Your task to perform on an android device: toggle notifications settings in the gmail app Image 0: 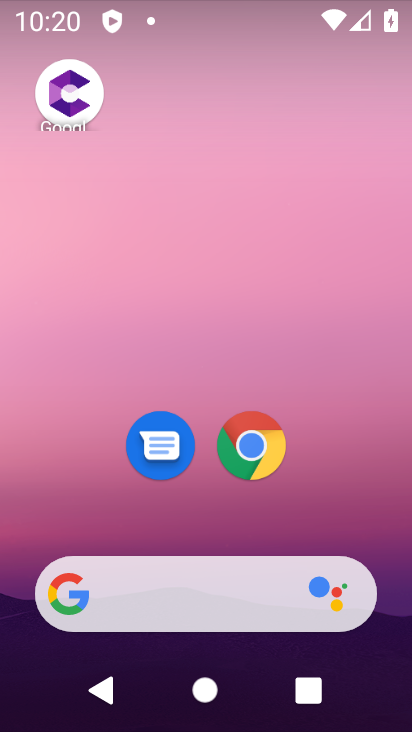
Step 0: drag from (219, 552) to (152, 18)
Your task to perform on an android device: toggle notifications settings in the gmail app Image 1: 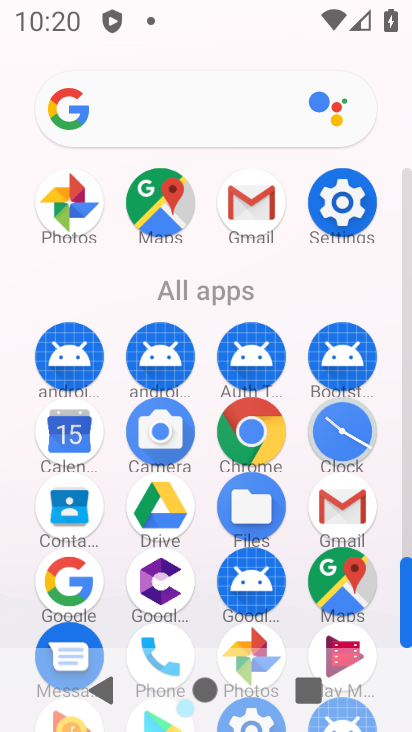
Step 1: click (253, 209)
Your task to perform on an android device: toggle notifications settings in the gmail app Image 2: 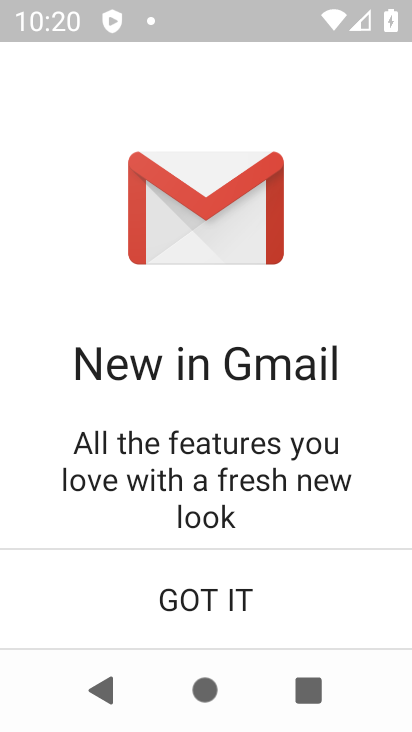
Step 2: click (116, 610)
Your task to perform on an android device: toggle notifications settings in the gmail app Image 3: 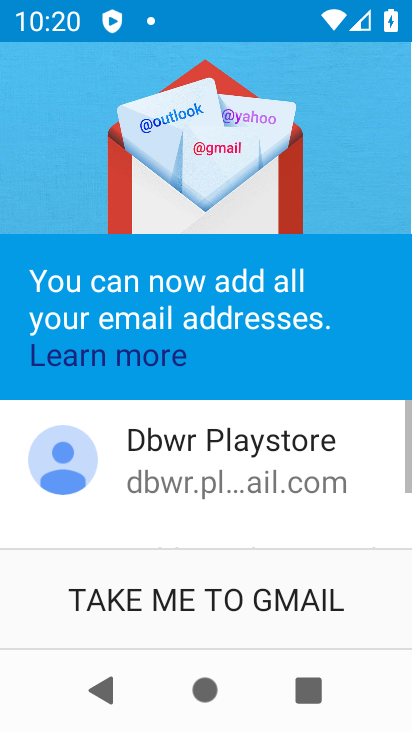
Step 3: click (115, 611)
Your task to perform on an android device: toggle notifications settings in the gmail app Image 4: 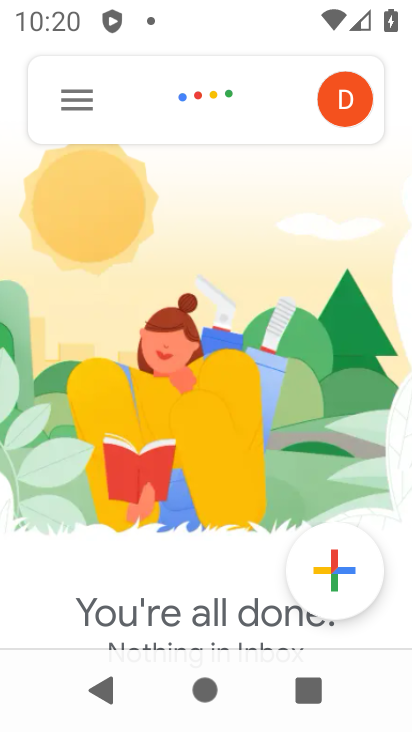
Step 4: click (72, 113)
Your task to perform on an android device: toggle notifications settings in the gmail app Image 5: 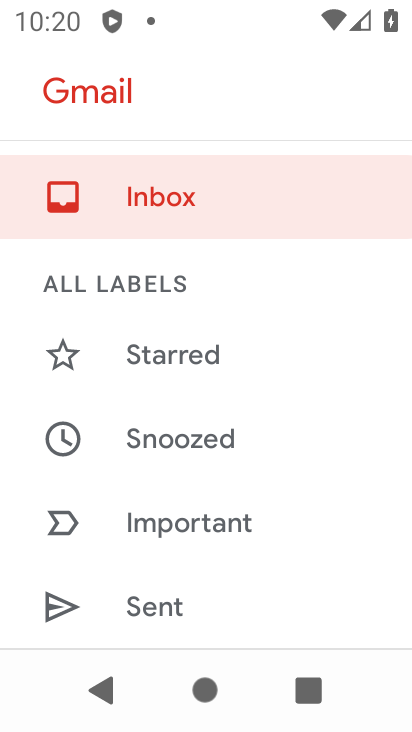
Step 5: drag from (157, 496) to (126, 2)
Your task to perform on an android device: toggle notifications settings in the gmail app Image 6: 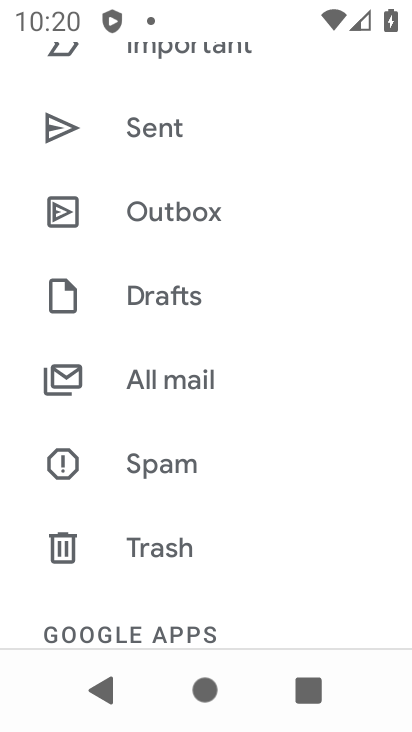
Step 6: drag from (209, 558) to (186, 40)
Your task to perform on an android device: toggle notifications settings in the gmail app Image 7: 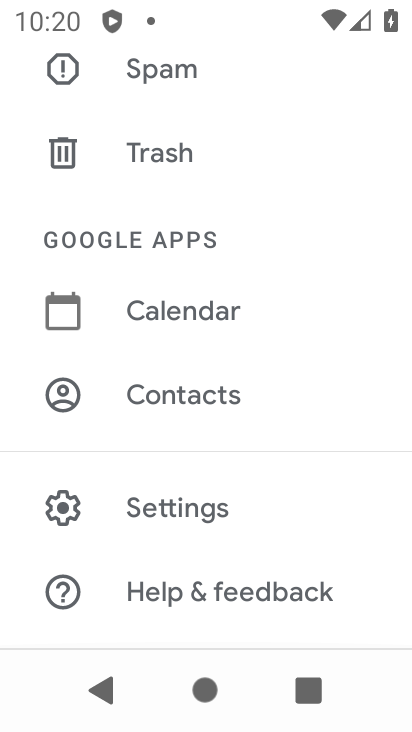
Step 7: click (191, 494)
Your task to perform on an android device: toggle notifications settings in the gmail app Image 8: 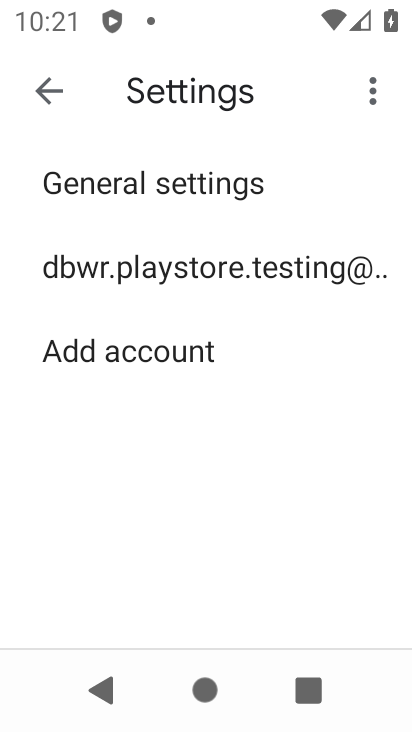
Step 8: click (152, 181)
Your task to perform on an android device: toggle notifications settings in the gmail app Image 9: 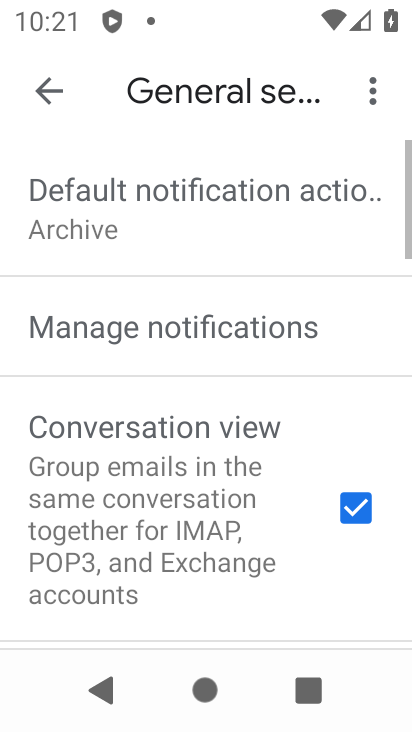
Step 9: click (169, 335)
Your task to perform on an android device: toggle notifications settings in the gmail app Image 10: 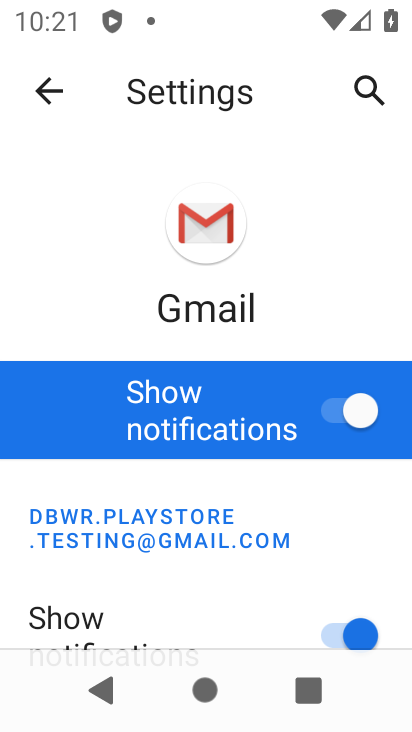
Step 10: task complete